Your task to perform on an android device: Open Yahoo.com Image 0: 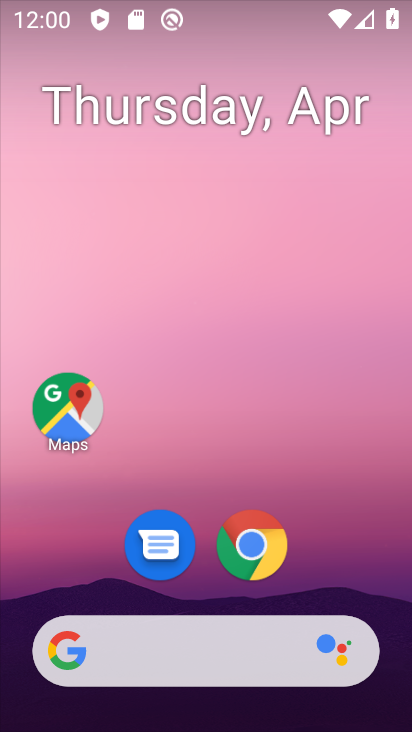
Step 0: drag from (315, 431) to (259, 83)
Your task to perform on an android device: Open Yahoo.com Image 1: 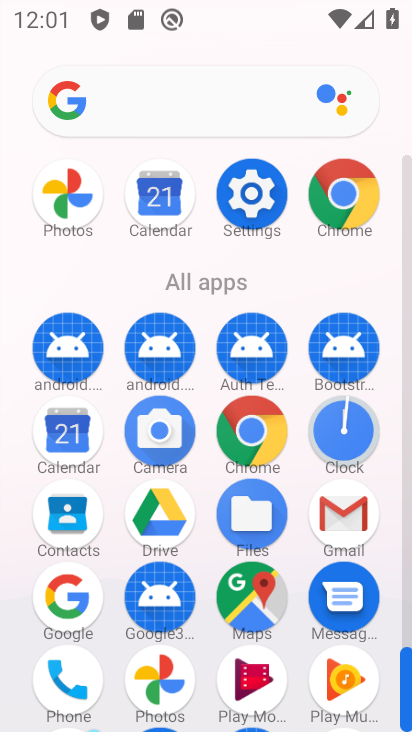
Step 1: click (261, 441)
Your task to perform on an android device: Open Yahoo.com Image 2: 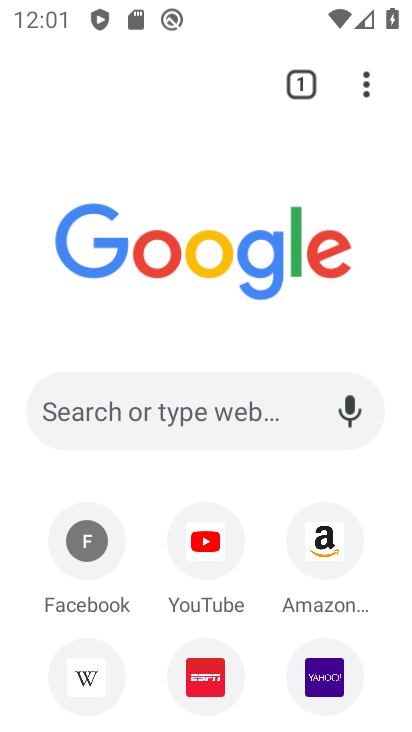
Step 2: click (306, 659)
Your task to perform on an android device: Open Yahoo.com Image 3: 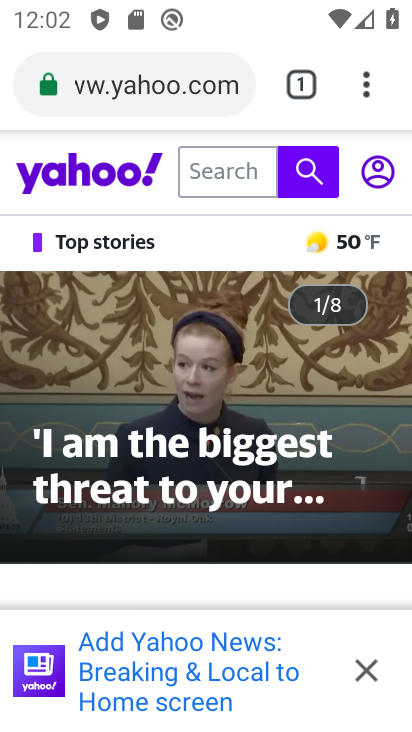
Step 3: task complete